Your task to perform on an android device: Search for pizza restaurants on Maps Image 0: 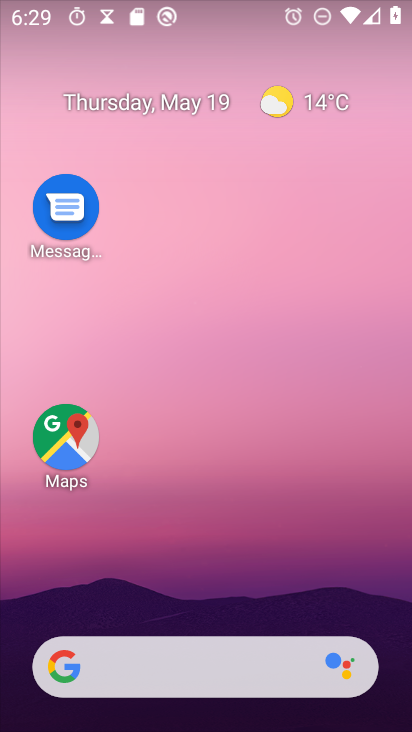
Step 0: drag from (191, 589) to (190, 207)
Your task to perform on an android device: Search for pizza restaurants on Maps Image 1: 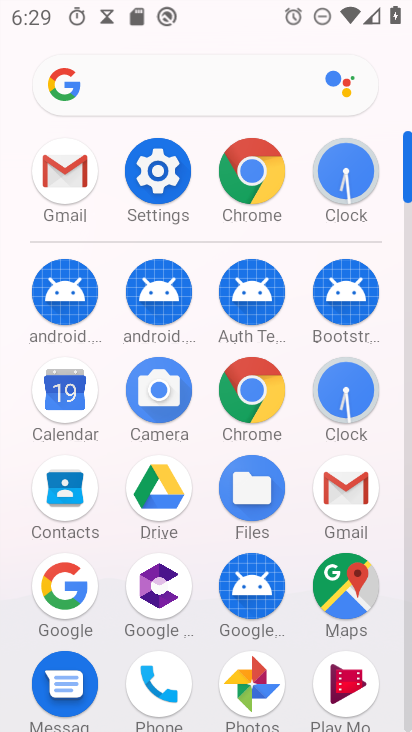
Step 1: click (345, 575)
Your task to perform on an android device: Search for pizza restaurants on Maps Image 2: 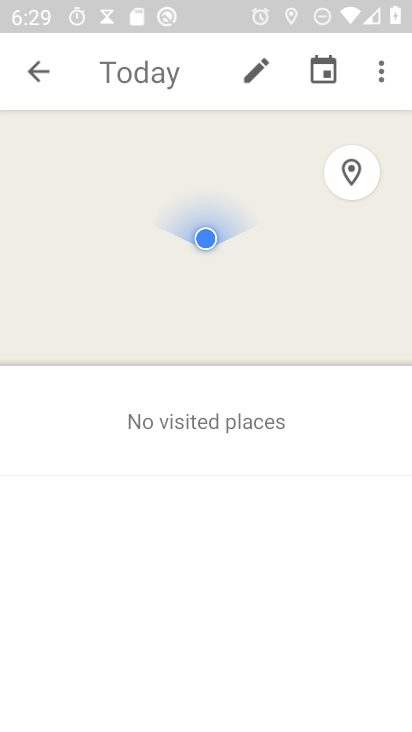
Step 2: click (23, 77)
Your task to perform on an android device: Search for pizza restaurants on Maps Image 3: 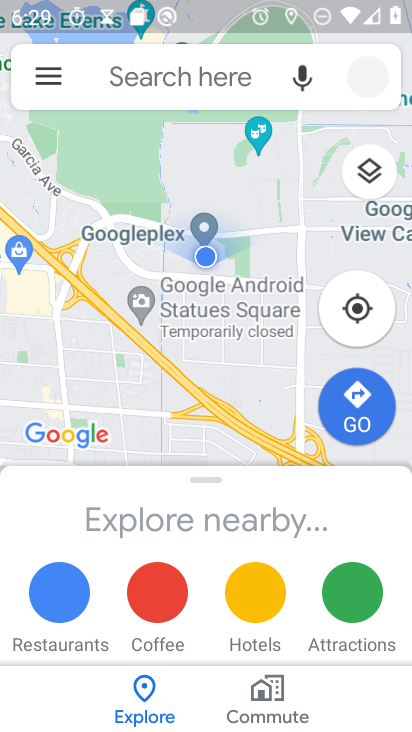
Step 3: click (175, 83)
Your task to perform on an android device: Search for pizza restaurants on Maps Image 4: 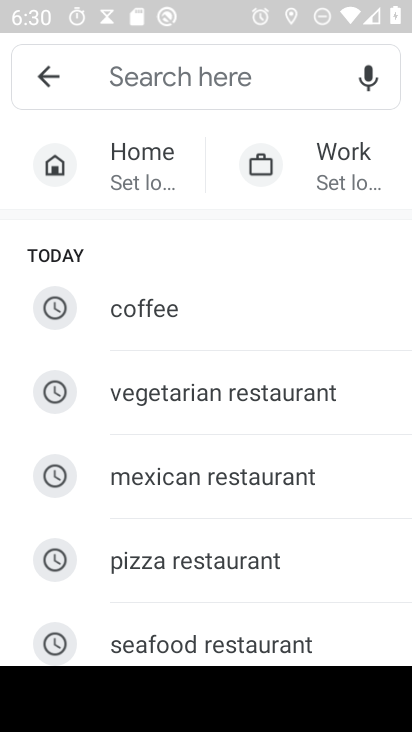
Step 4: click (201, 564)
Your task to perform on an android device: Search for pizza restaurants on Maps Image 5: 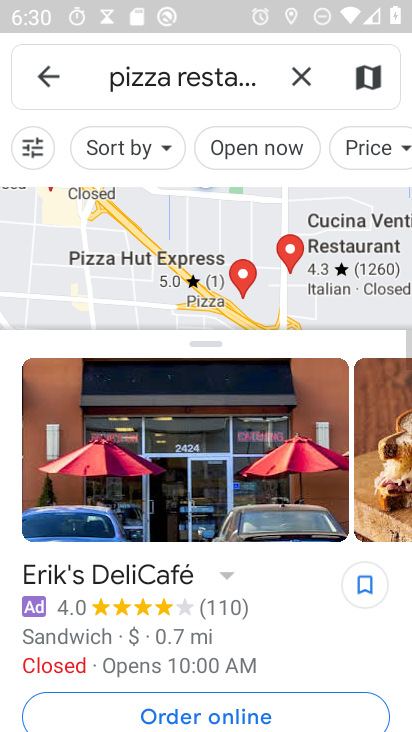
Step 5: task complete